Your task to perform on an android device: Open wifi settings Image 0: 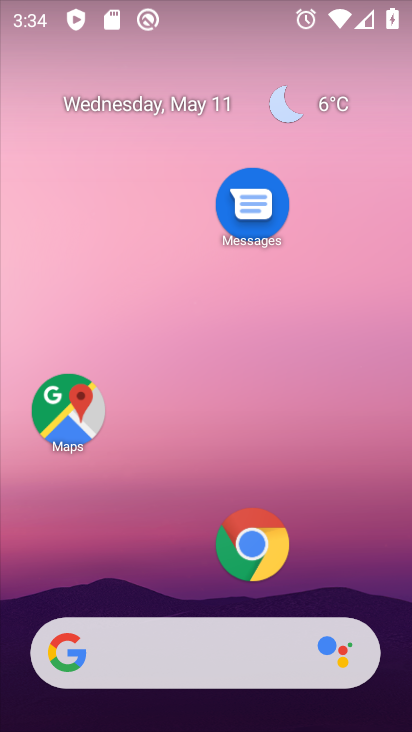
Step 0: drag from (153, 41) to (162, 548)
Your task to perform on an android device: Open wifi settings Image 1: 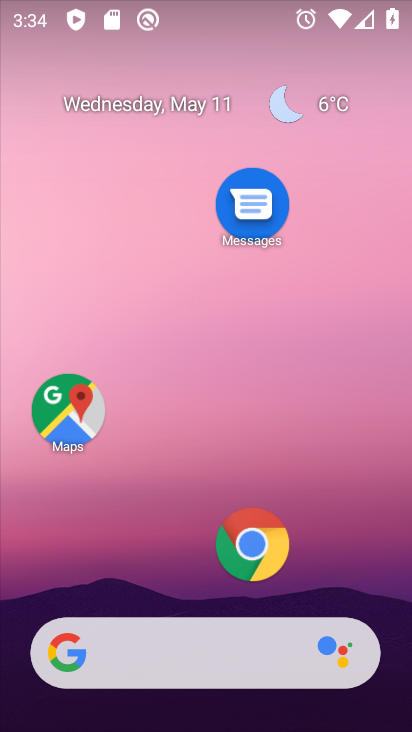
Step 1: drag from (71, 12) to (184, 586)
Your task to perform on an android device: Open wifi settings Image 2: 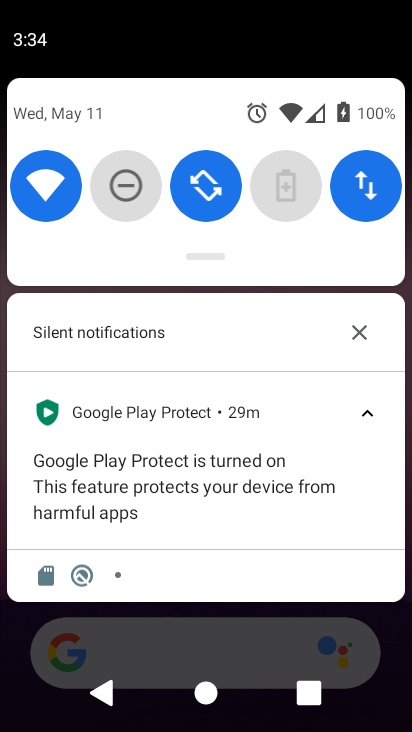
Step 2: click (46, 184)
Your task to perform on an android device: Open wifi settings Image 3: 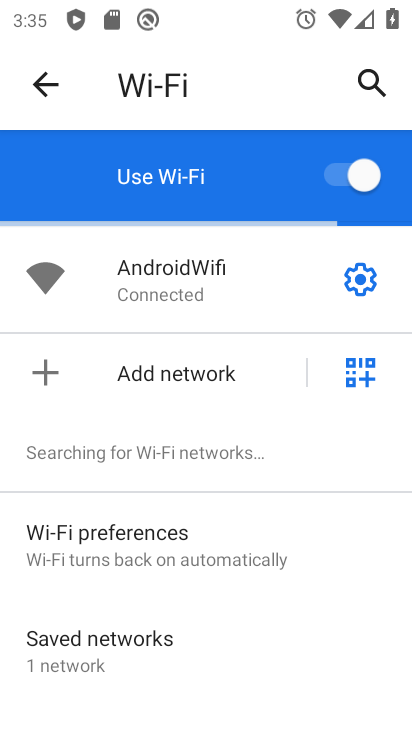
Step 3: task complete